Your task to perform on an android device: Open Google Image 0: 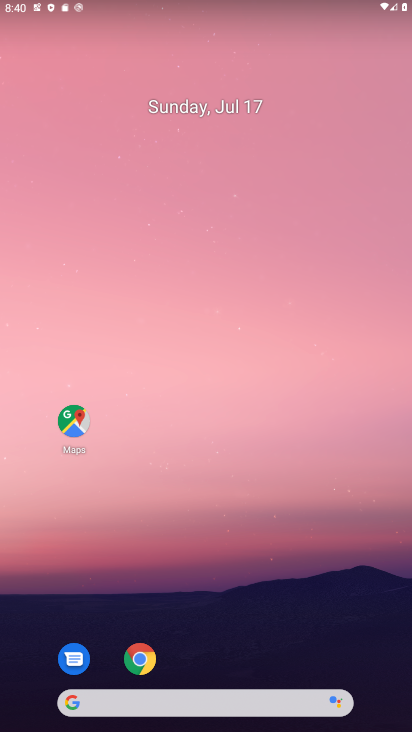
Step 0: drag from (202, 656) to (173, 223)
Your task to perform on an android device: Open Google Image 1: 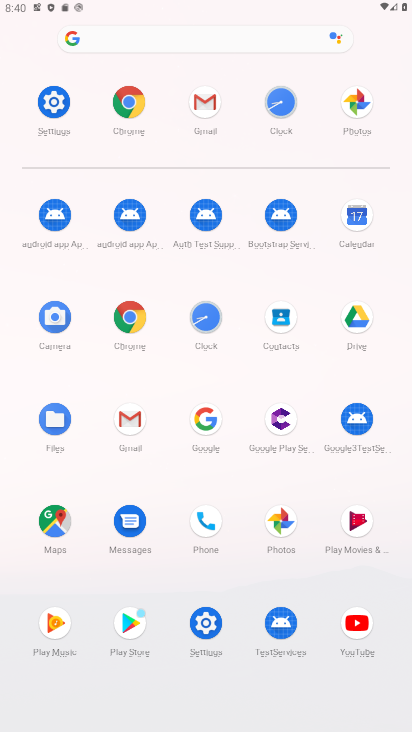
Step 1: click (216, 424)
Your task to perform on an android device: Open Google Image 2: 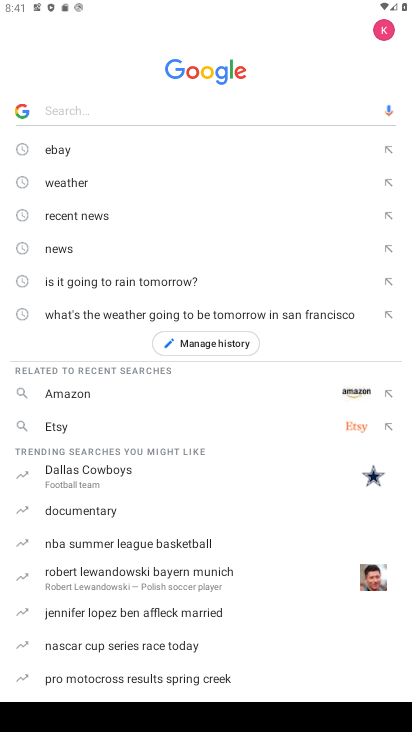
Step 2: task complete